Your task to perform on an android device: Open Google Chrome and click the shortcut for Amazon.com Image 0: 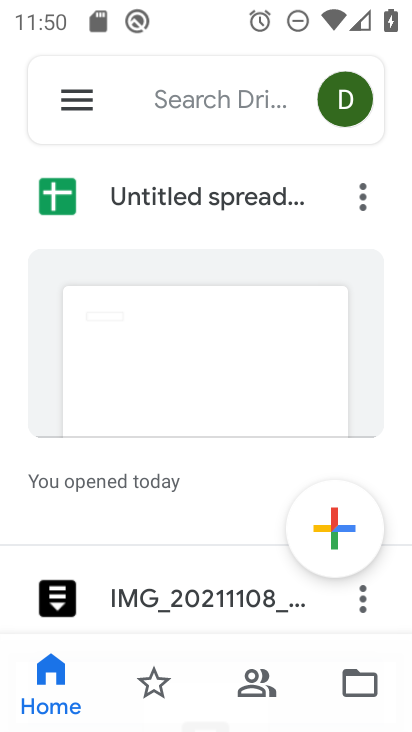
Step 0: press home button
Your task to perform on an android device: Open Google Chrome and click the shortcut for Amazon.com Image 1: 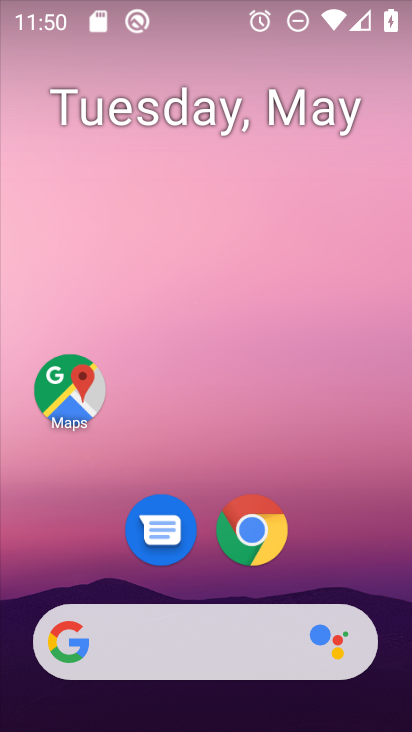
Step 1: click (251, 535)
Your task to perform on an android device: Open Google Chrome and click the shortcut for Amazon.com Image 2: 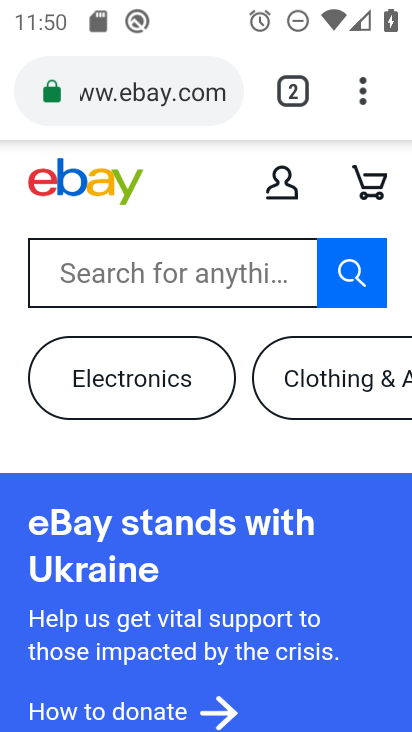
Step 2: click (171, 91)
Your task to perform on an android device: Open Google Chrome and click the shortcut for Amazon.com Image 3: 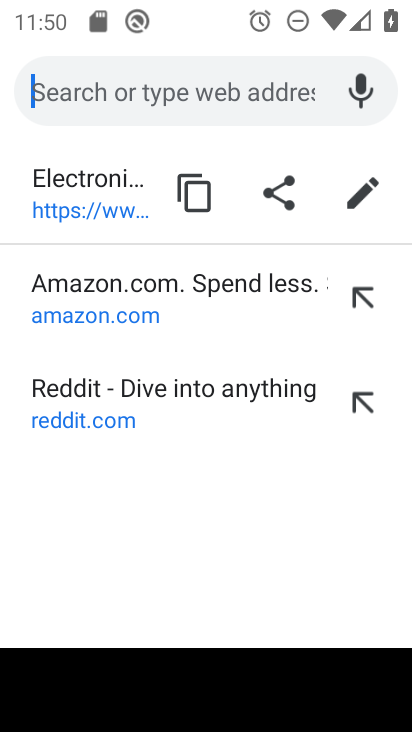
Step 3: click (116, 313)
Your task to perform on an android device: Open Google Chrome and click the shortcut for Amazon.com Image 4: 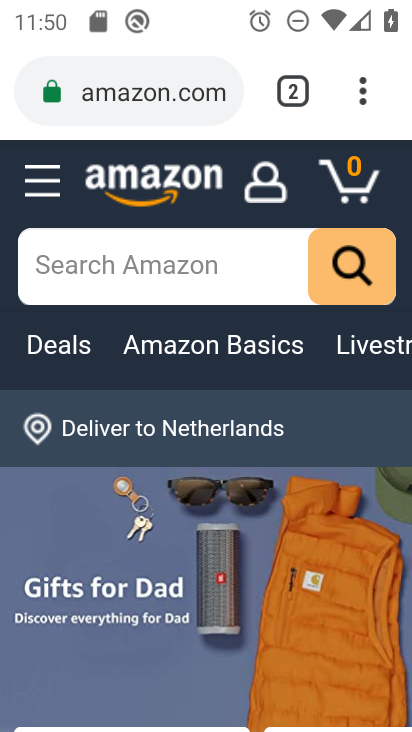
Step 4: task complete